Your task to perform on an android device: toggle sleep mode Image 0: 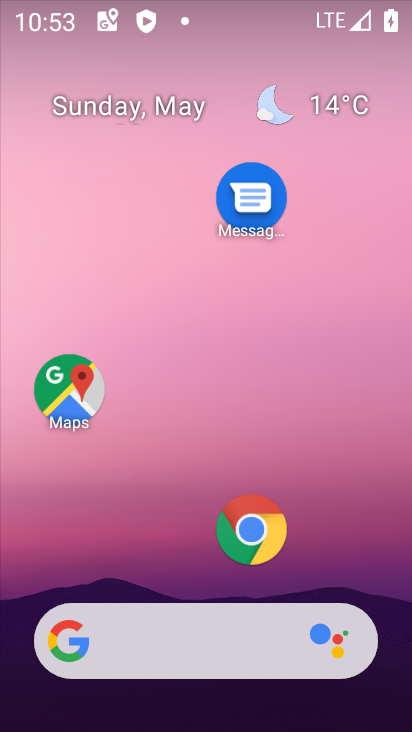
Step 0: drag from (154, 570) to (211, 15)
Your task to perform on an android device: toggle sleep mode Image 1: 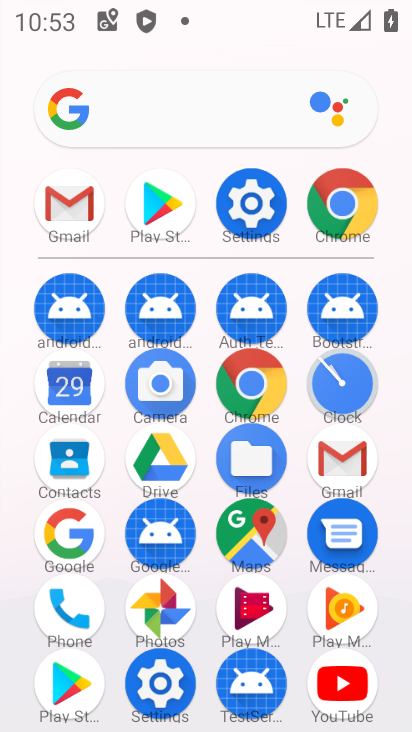
Step 1: click (243, 222)
Your task to perform on an android device: toggle sleep mode Image 2: 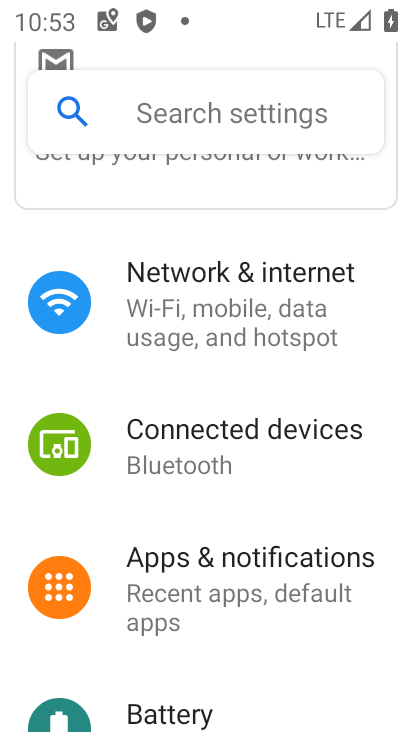
Step 2: click (215, 120)
Your task to perform on an android device: toggle sleep mode Image 3: 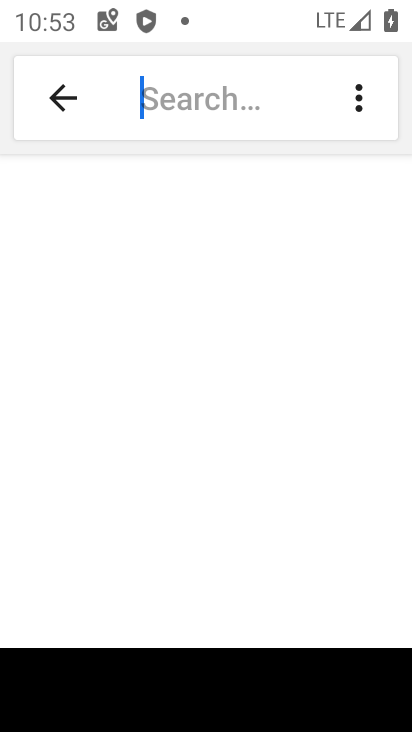
Step 3: type "sleep mode"
Your task to perform on an android device: toggle sleep mode Image 4: 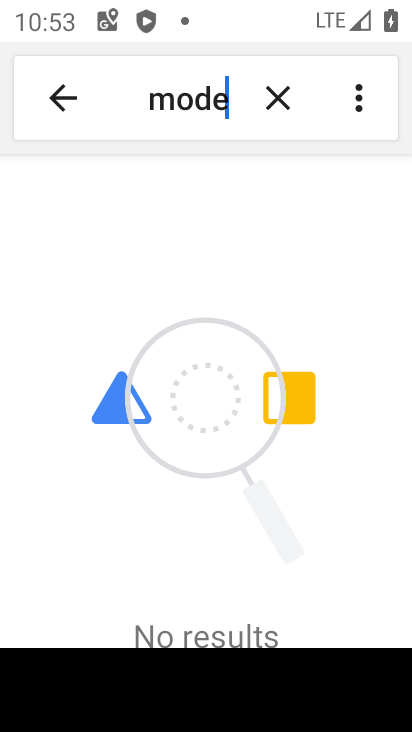
Step 4: task complete